Your task to perform on an android device: open device folders in google photos Image 0: 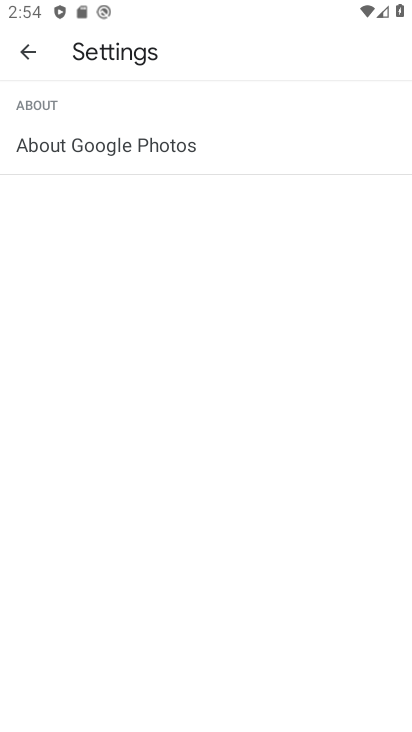
Step 0: press home button
Your task to perform on an android device: open device folders in google photos Image 1: 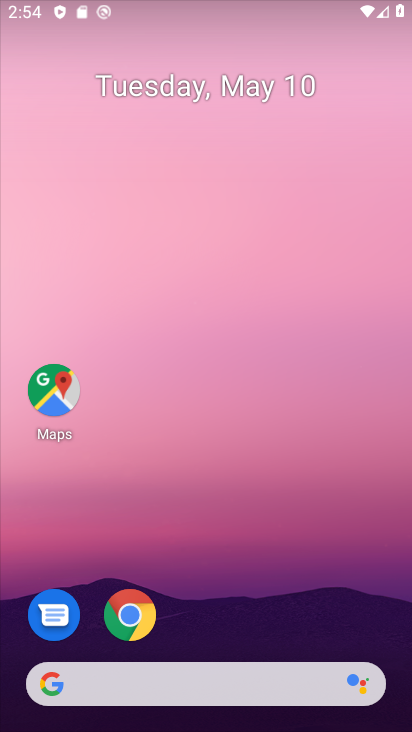
Step 1: drag from (244, 498) to (227, 169)
Your task to perform on an android device: open device folders in google photos Image 2: 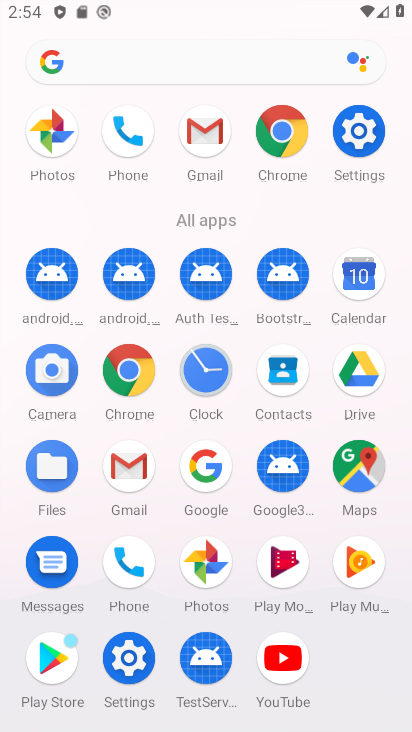
Step 2: click (45, 143)
Your task to perform on an android device: open device folders in google photos Image 3: 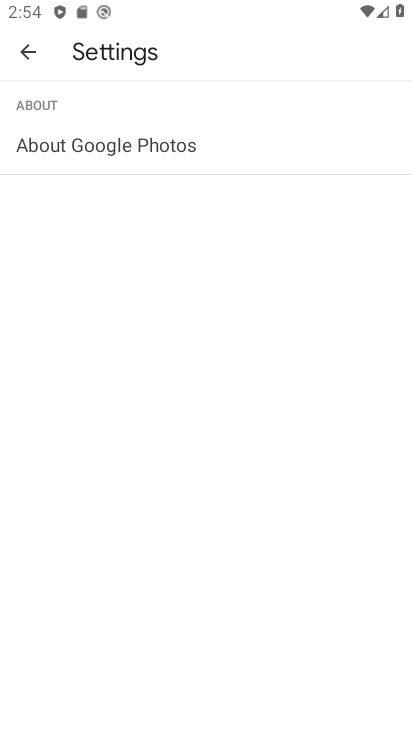
Step 3: press back button
Your task to perform on an android device: open device folders in google photos Image 4: 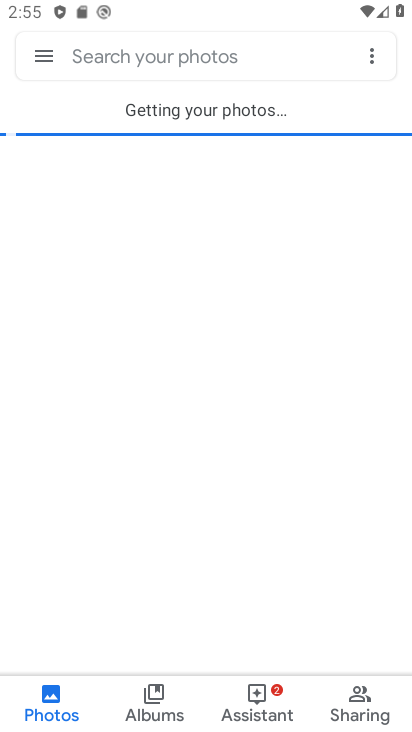
Step 4: click (39, 54)
Your task to perform on an android device: open device folders in google photos Image 5: 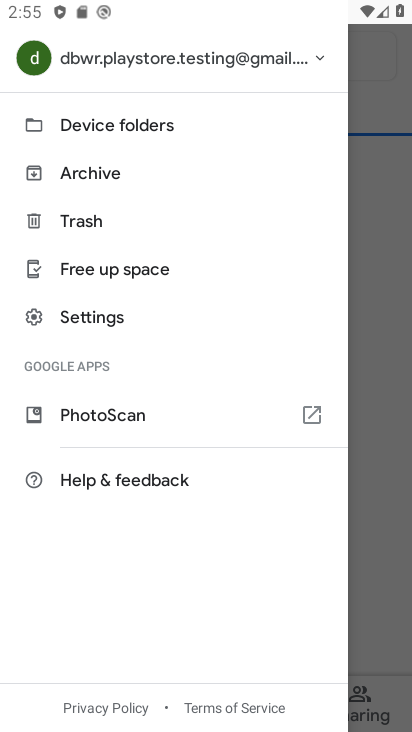
Step 5: click (87, 138)
Your task to perform on an android device: open device folders in google photos Image 6: 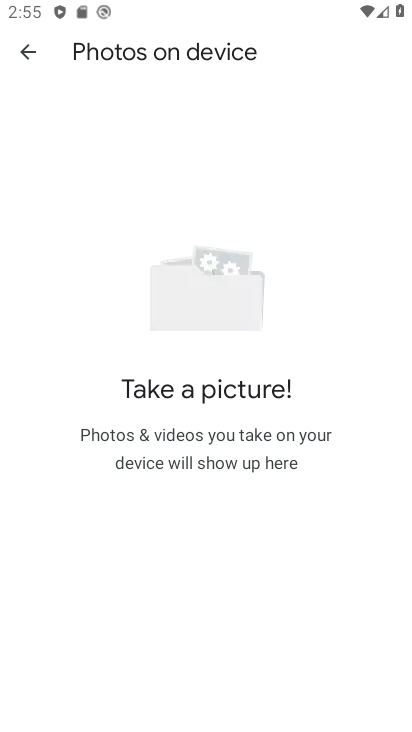
Step 6: task complete